Your task to perform on an android device: check out phone information Image 0: 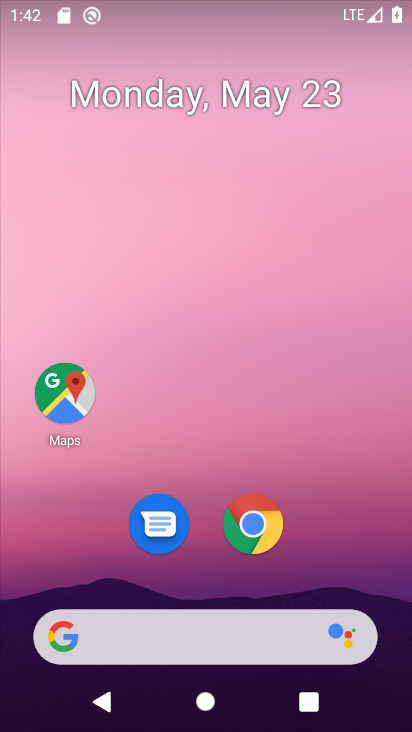
Step 0: drag from (312, 534) to (286, 79)
Your task to perform on an android device: check out phone information Image 1: 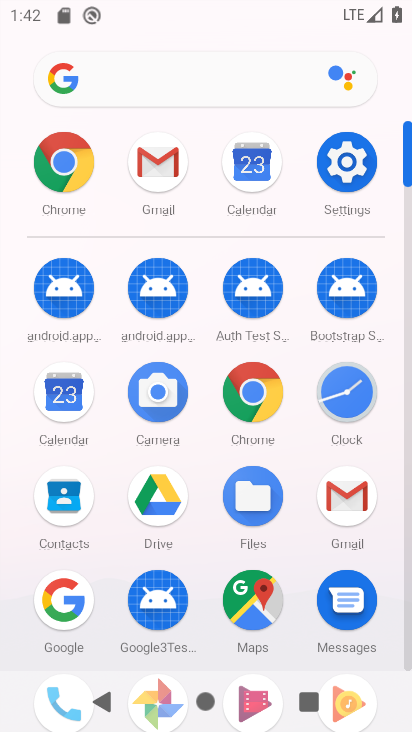
Step 1: drag from (201, 535) to (223, 261)
Your task to perform on an android device: check out phone information Image 2: 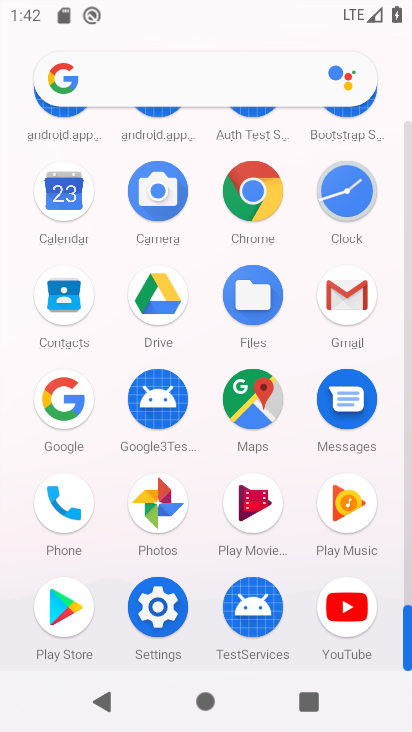
Step 2: click (68, 499)
Your task to perform on an android device: check out phone information Image 3: 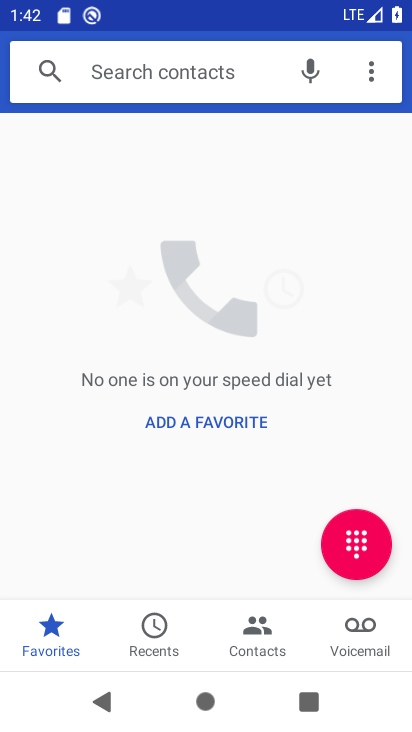
Step 3: click (367, 67)
Your task to perform on an android device: check out phone information Image 4: 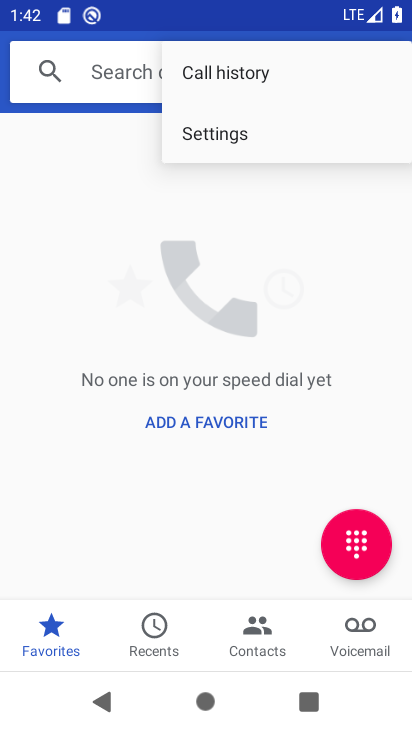
Step 4: click (297, 129)
Your task to perform on an android device: check out phone information Image 5: 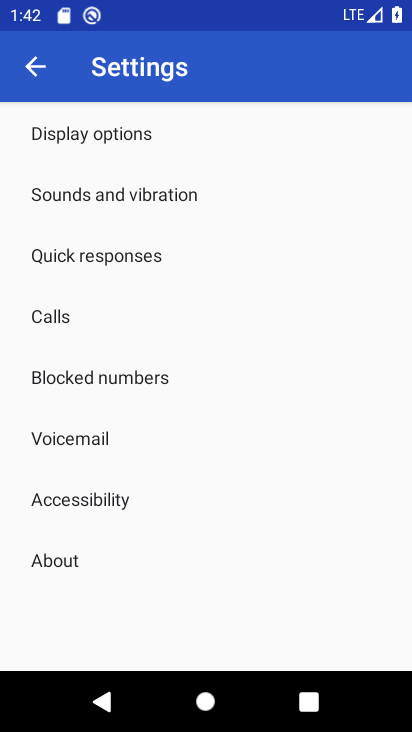
Step 5: click (84, 553)
Your task to perform on an android device: check out phone information Image 6: 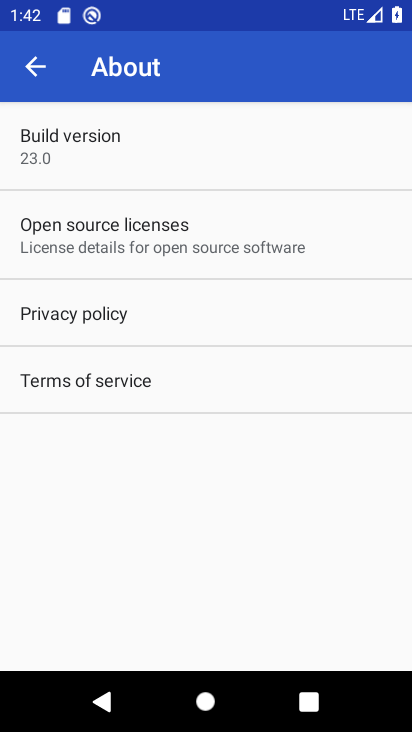
Step 6: task complete